Your task to perform on an android device: check battery use Image 0: 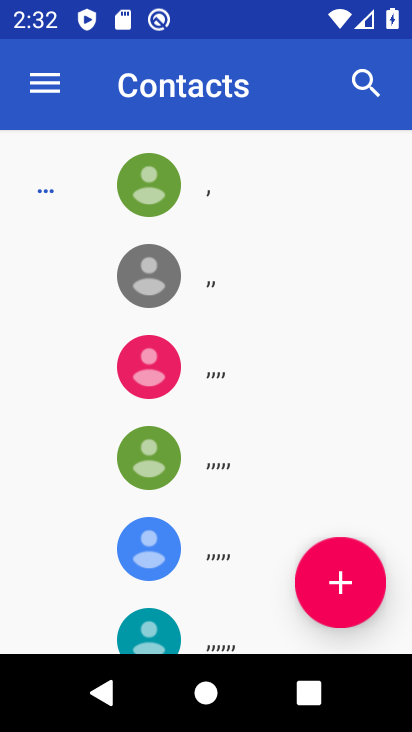
Step 0: press home button
Your task to perform on an android device: check battery use Image 1: 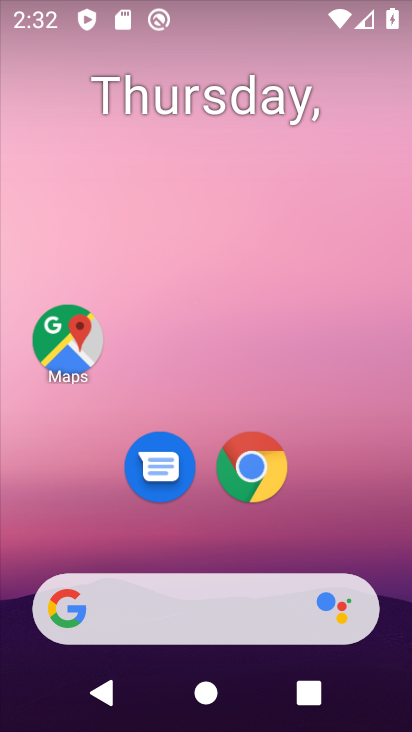
Step 1: drag from (234, 617) to (278, 114)
Your task to perform on an android device: check battery use Image 2: 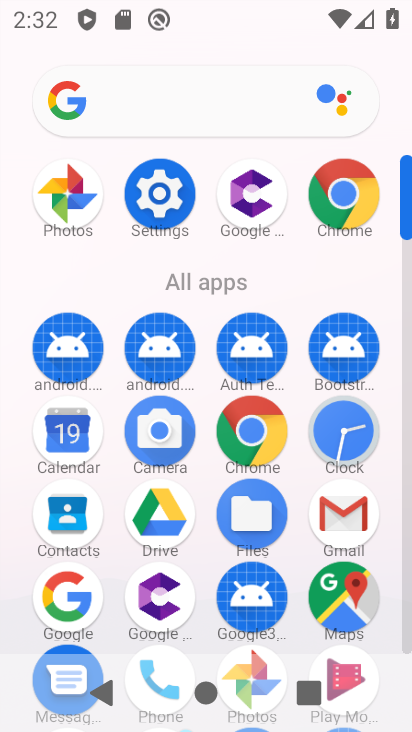
Step 2: click (182, 199)
Your task to perform on an android device: check battery use Image 3: 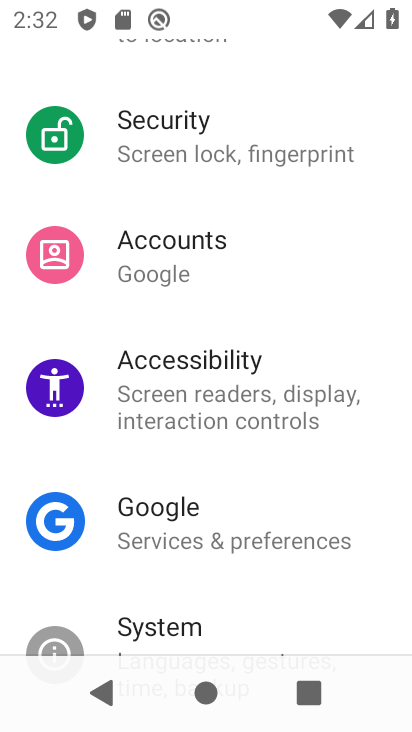
Step 3: drag from (166, 142) to (191, 609)
Your task to perform on an android device: check battery use Image 4: 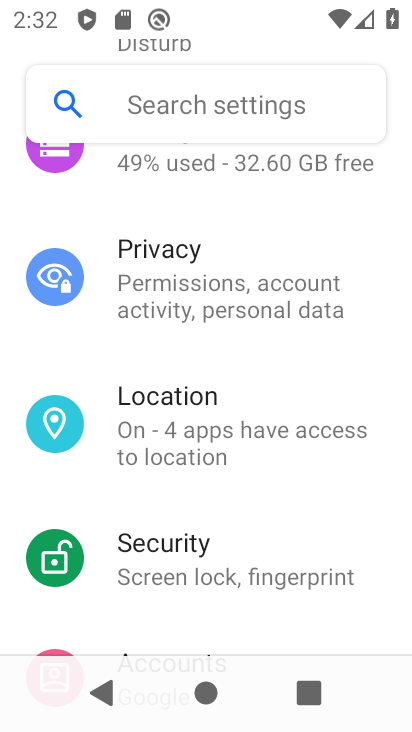
Step 4: drag from (184, 221) to (197, 572)
Your task to perform on an android device: check battery use Image 5: 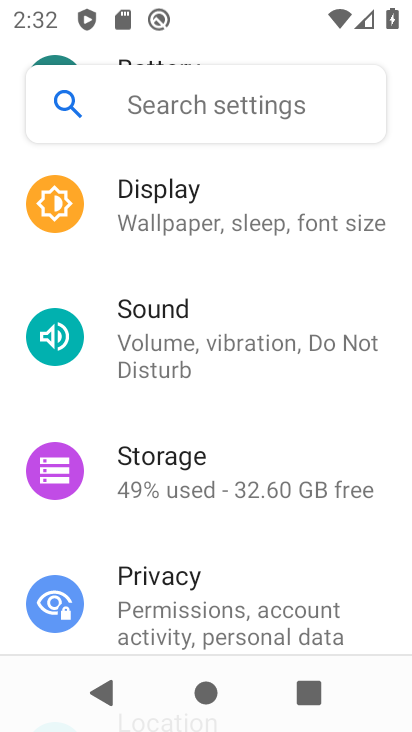
Step 5: drag from (286, 596) to (266, 110)
Your task to perform on an android device: check battery use Image 6: 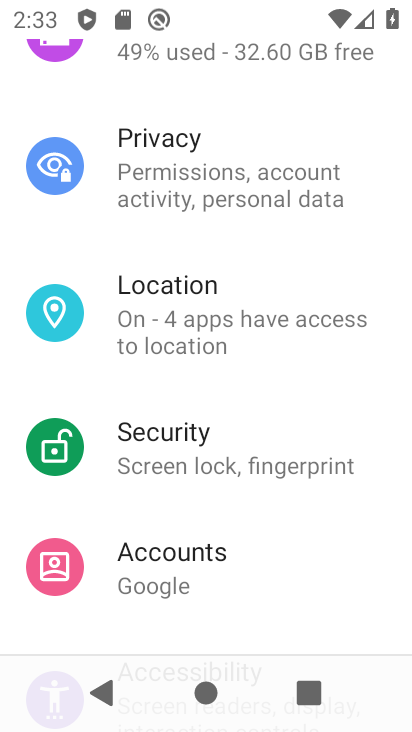
Step 6: drag from (193, 128) to (255, 685)
Your task to perform on an android device: check battery use Image 7: 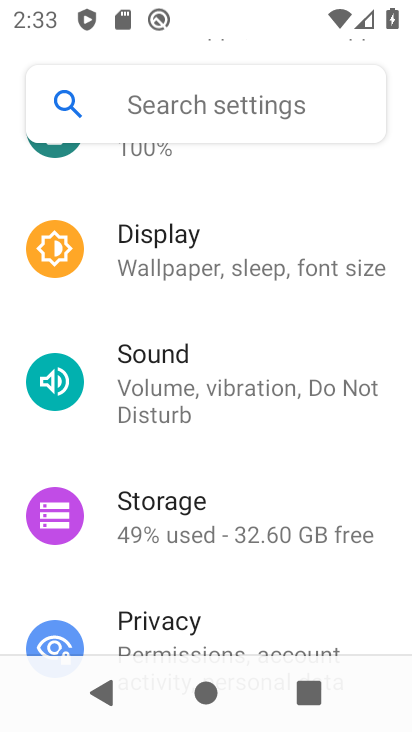
Step 7: drag from (178, 202) to (191, 617)
Your task to perform on an android device: check battery use Image 8: 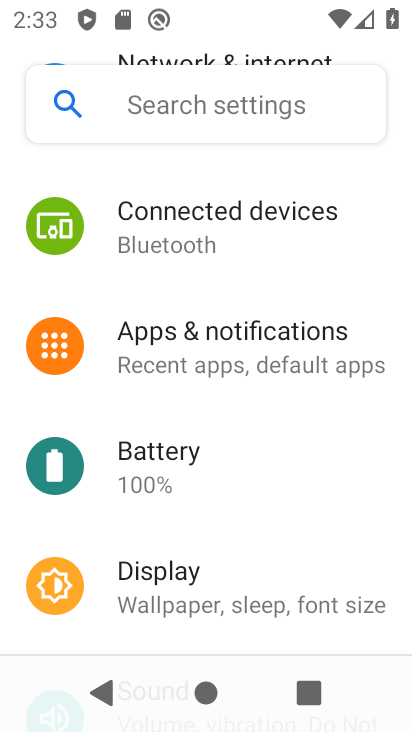
Step 8: click (177, 478)
Your task to perform on an android device: check battery use Image 9: 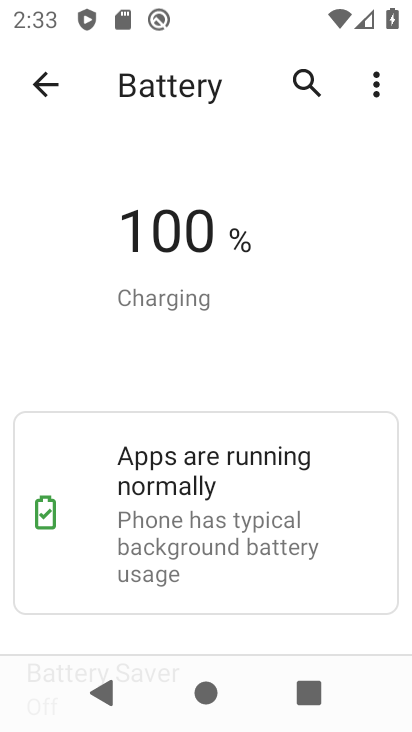
Step 9: task complete